Your task to perform on an android device: turn off smart reply in the gmail app Image 0: 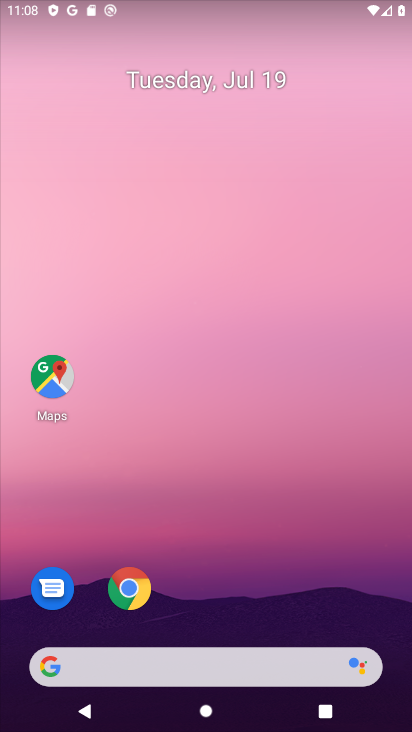
Step 0: drag from (252, 709) to (288, 194)
Your task to perform on an android device: turn off smart reply in the gmail app Image 1: 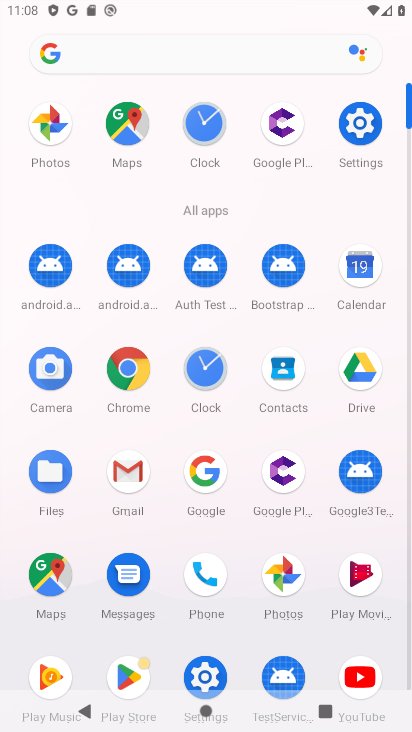
Step 1: click (127, 480)
Your task to perform on an android device: turn off smart reply in the gmail app Image 2: 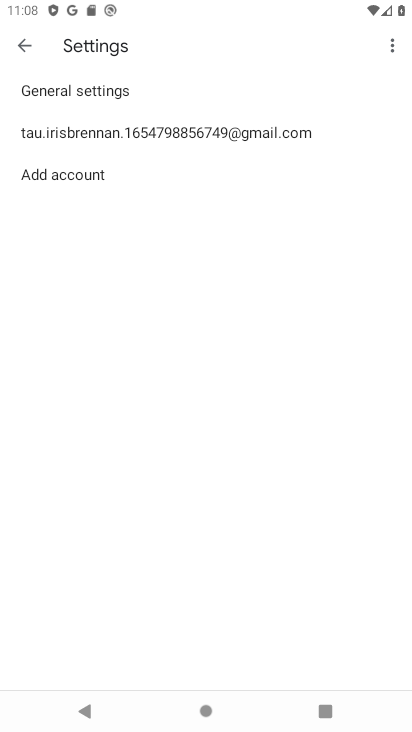
Step 2: click (133, 137)
Your task to perform on an android device: turn off smart reply in the gmail app Image 3: 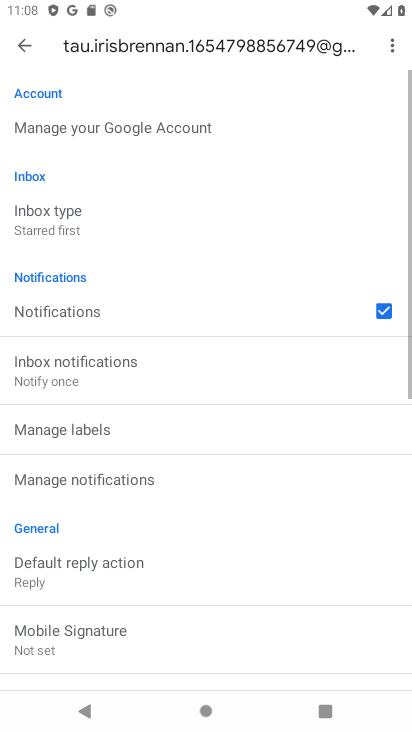
Step 3: drag from (190, 636) to (203, 373)
Your task to perform on an android device: turn off smart reply in the gmail app Image 4: 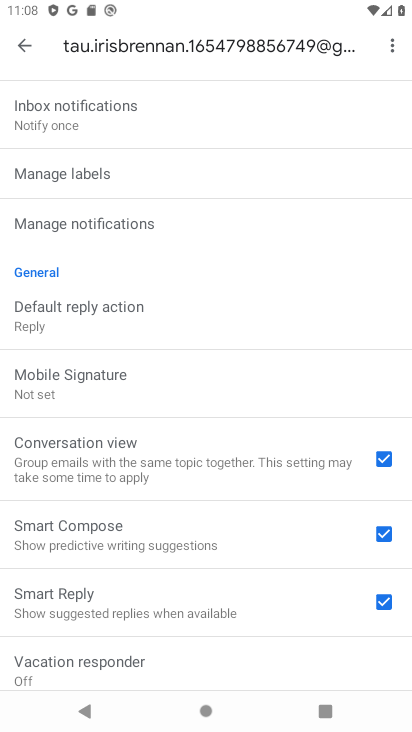
Step 4: click (383, 604)
Your task to perform on an android device: turn off smart reply in the gmail app Image 5: 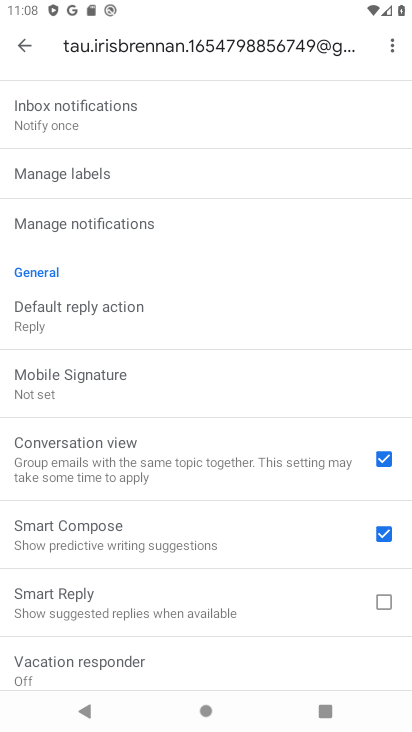
Step 5: task complete